Your task to perform on an android device: Set the phone to "Do not disturb". Image 0: 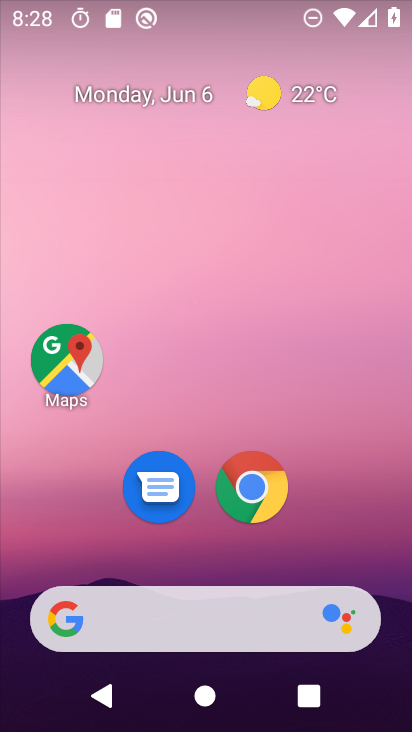
Step 0: drag from (222, 6) to (268, 545)
Your task to perform on an android device: Set the phone to "Do not disturb". Image 1: 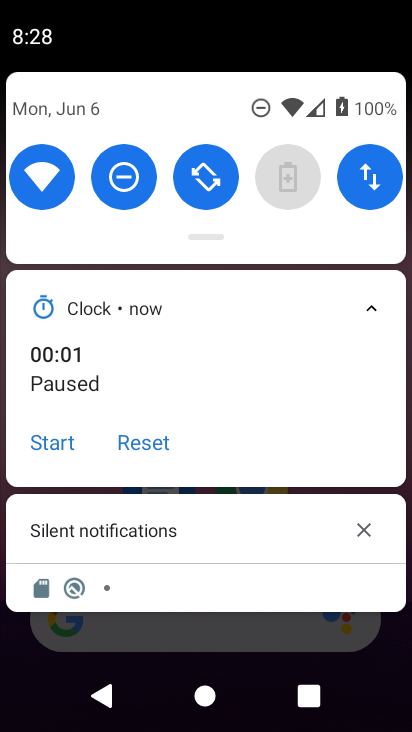
Step 1: task complete